Your task to perform on an android device: Search for the best books on Goodreads. Image 0: 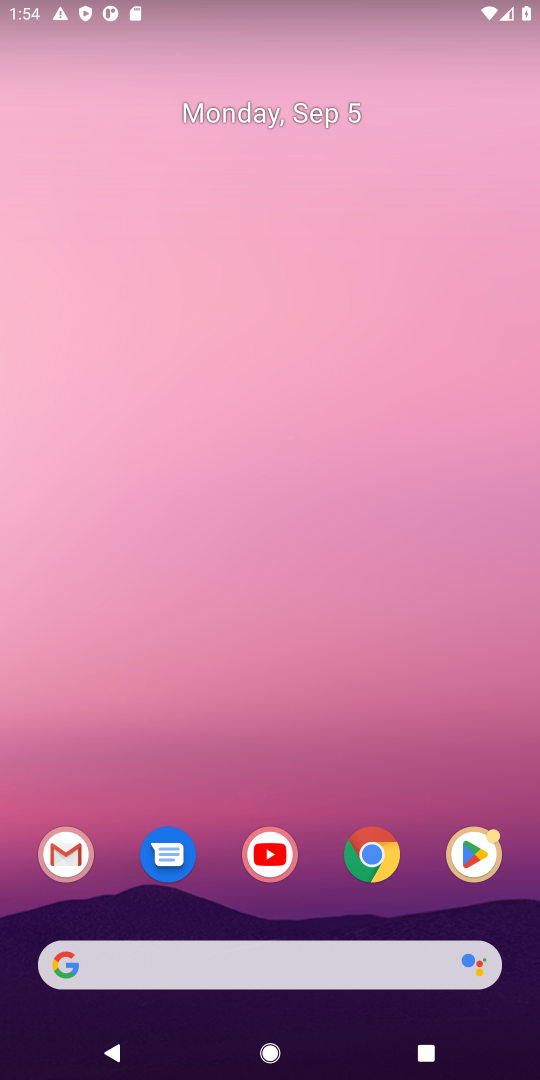
Step 0: click (403, 961)
Your task to perform on an android device: Search for the best books on Goodreads. Image 1: 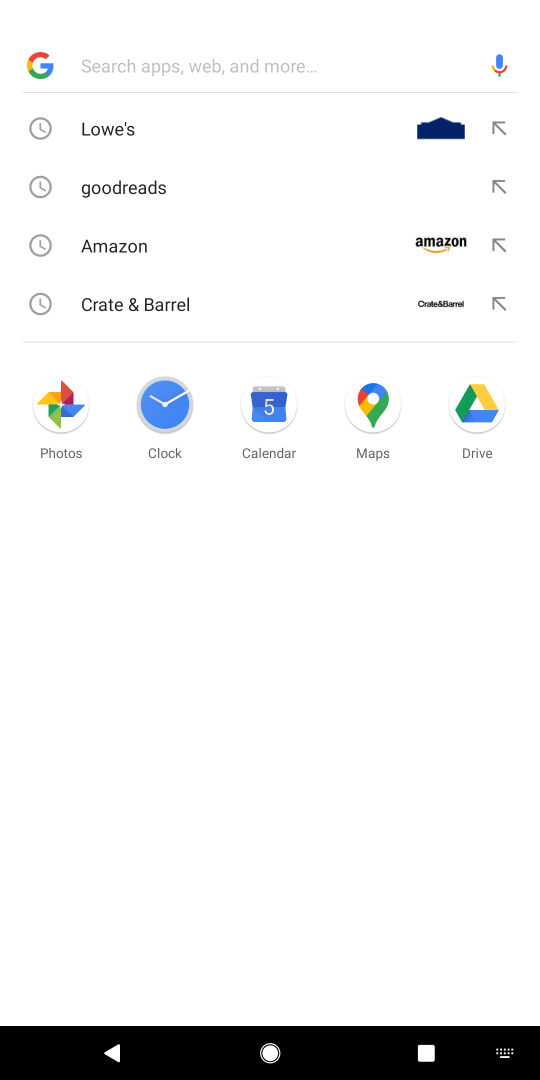
Step 1: type "goodreads"
Your task to perform on an android device: Search for the best books on Goodreads. Image 2: 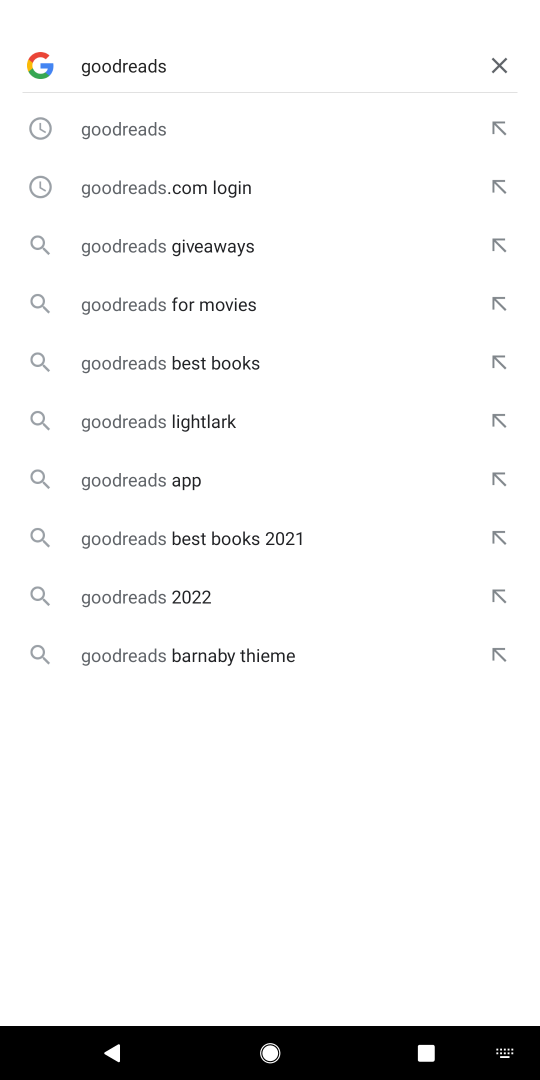
Step 2: press enter
Your task to perform on an android device: Search for the best books on Goodreads. Image 3: 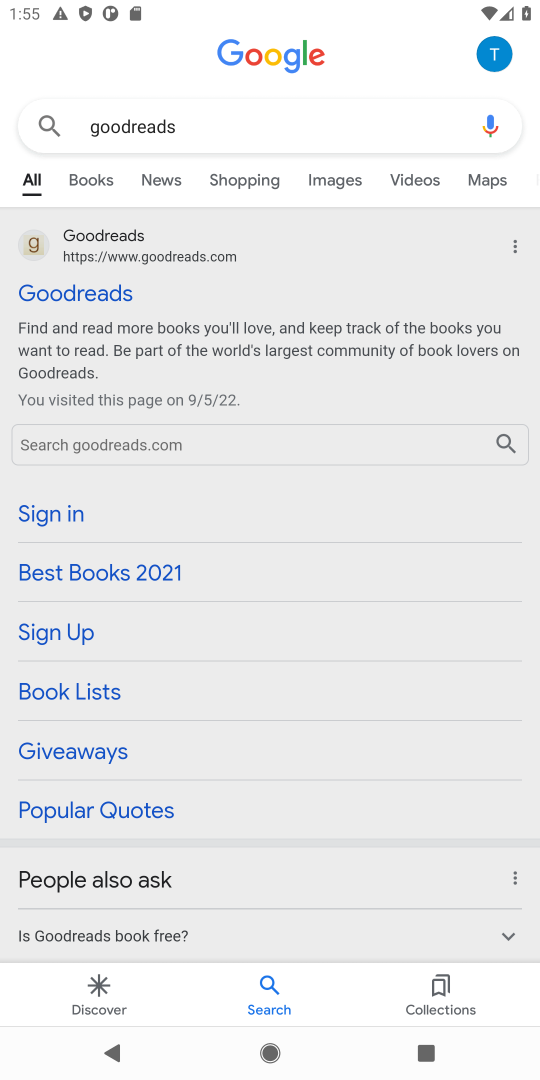
Step 3: click (110, 289)
Your task to perform on an android device: Search for the best books on Goodreads. Image 4: 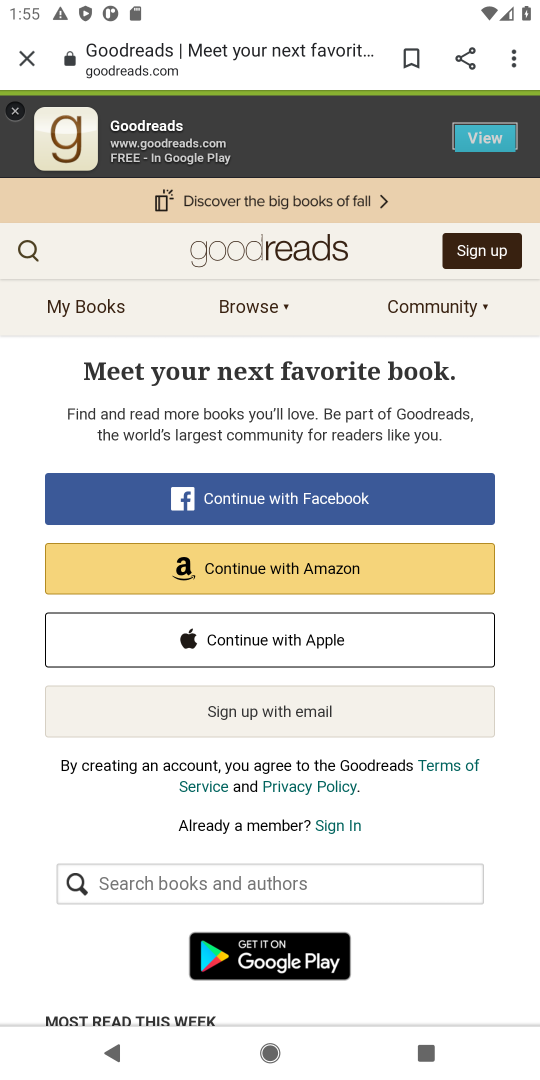
Step 4: click (40, 256)
Your task to perform on an android device: Search for the best books on Goodreads. Image 5: 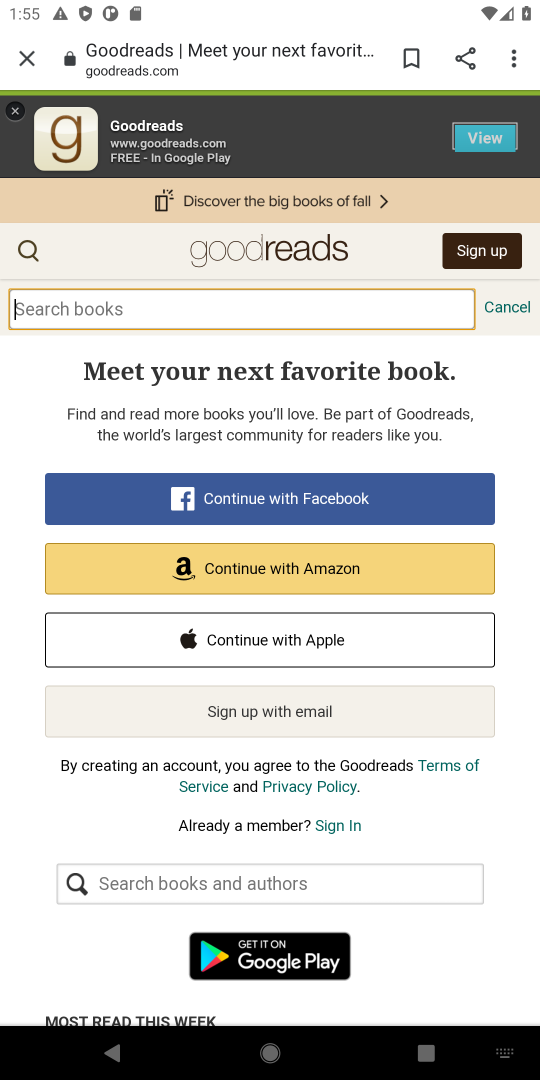
Step 5: type "best books"
Your task to perform on an android device: Search for the best books on Goodreads. Image 6: 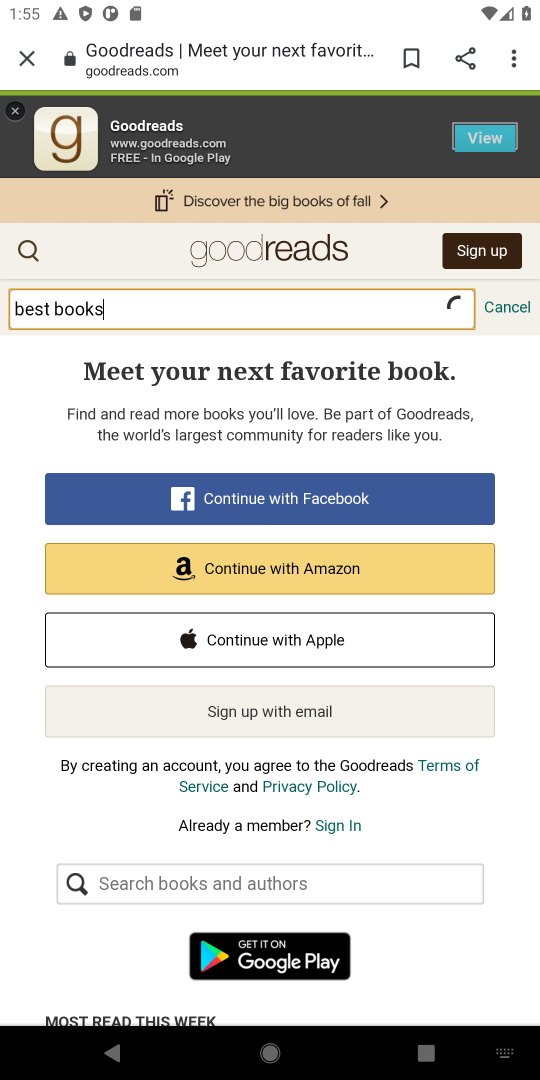
Step 6: press enter
Your task to perform on an android device: Search for the best books on Goodreads. Image 7: 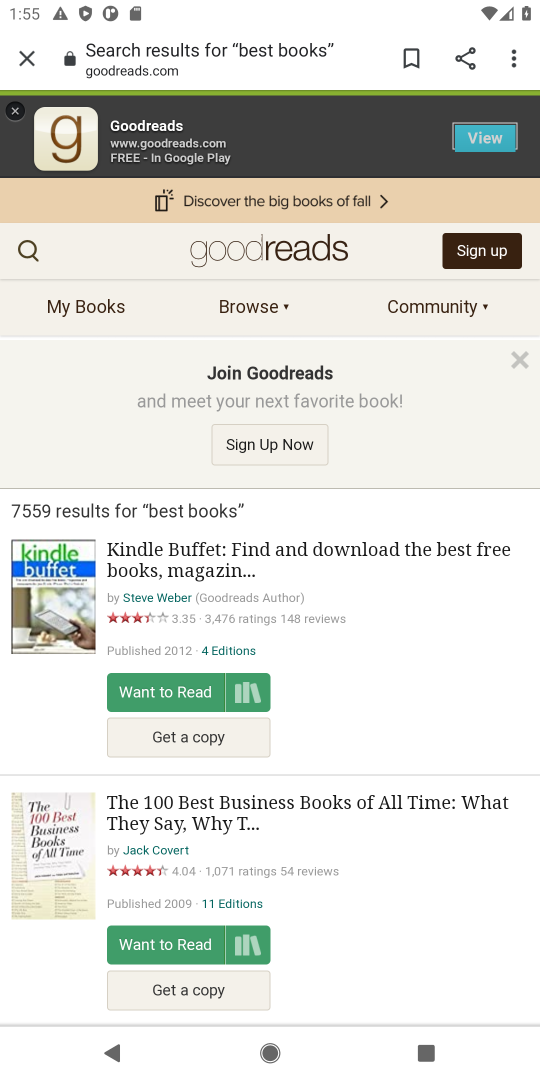
Step 7: task complete